Your task to perform on an android device: Go to internet settings Image 0: 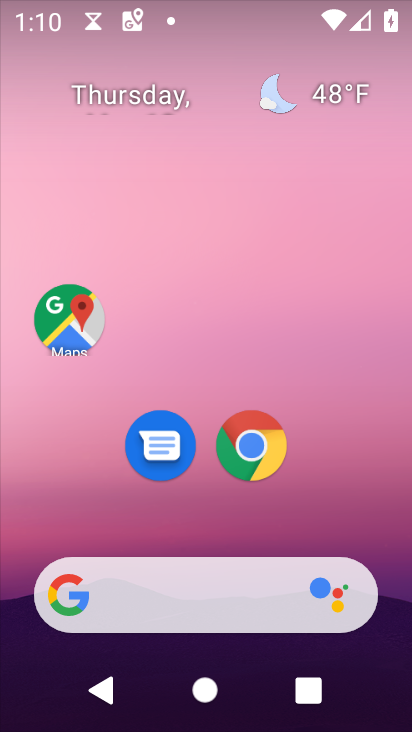
Step 0: drag from (292, 520) to (252, 121)
Your task to perform on an android device: Go to internet settings Image 1: 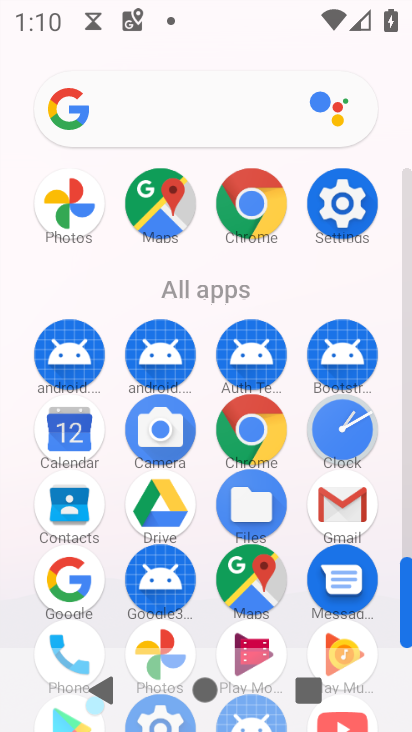
Step 1: click (355, 187)
Your task to perform on an android device: Go to internet settings Image 2: 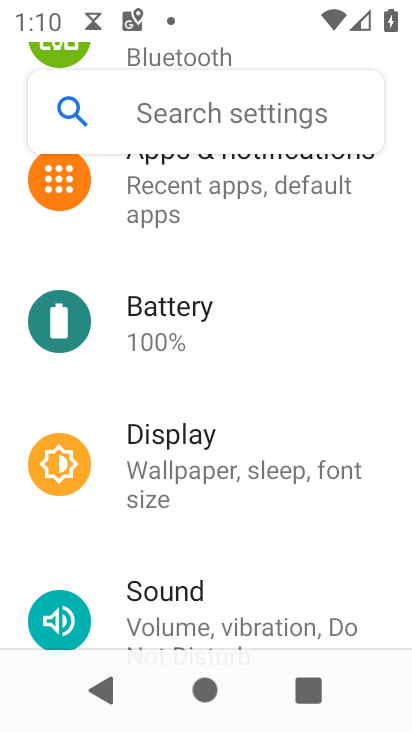
Step 2: drag from (259, 543) to (284, 382)
Your task to perform on an android device: Go to internet settings Image 3: 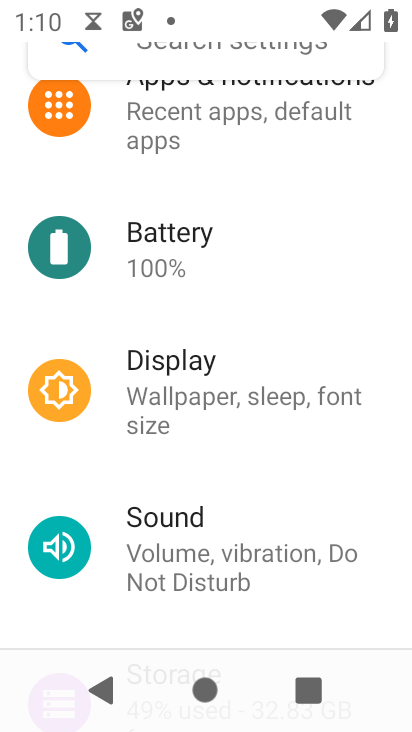
Step 3: drag from (338, 181) to (312, 490)
Your task to perform on an android device: Go to internet settings Image 4: 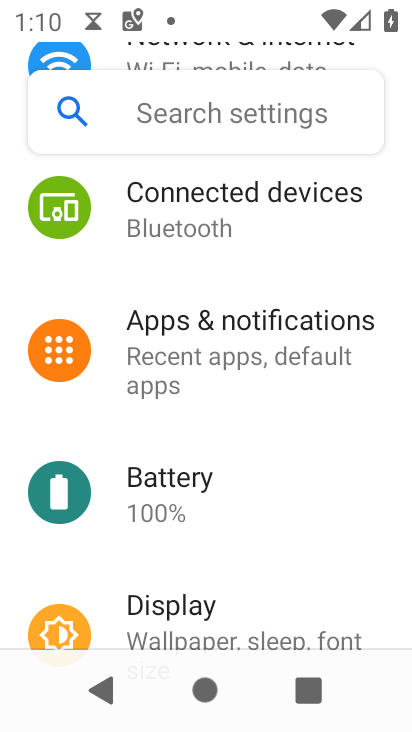
Step 4: drag from (282, 477) to (287, 219)
Your task to perform on an android device: Go to internet settings Image 5: 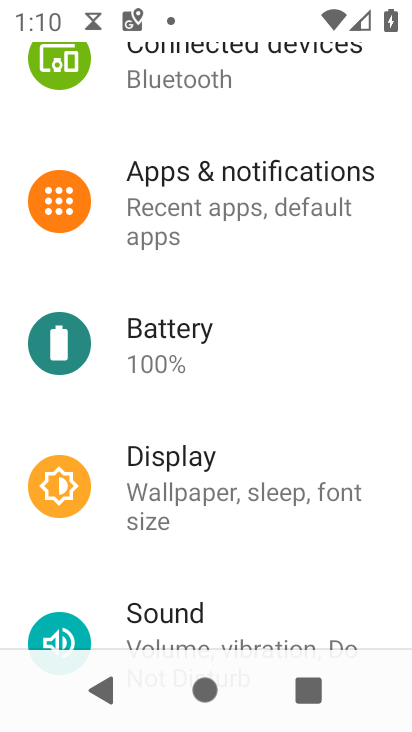
Step 5: drag from (316, 102) to (308, 613)
Your task to perform on an android device: Go to internet settings Image 6: 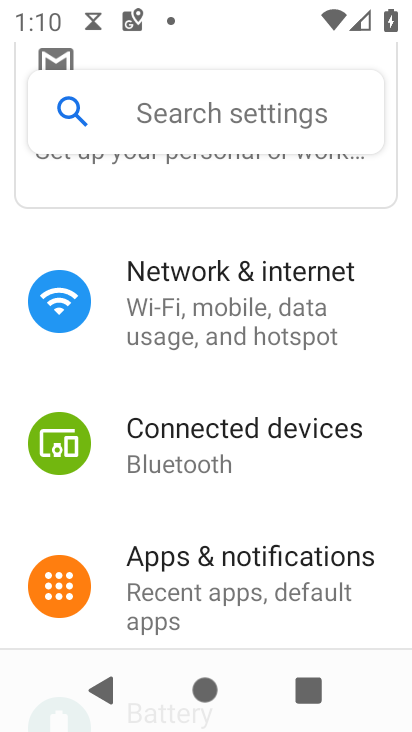
Step 6: click (275, 312)
Your task to perform on an android device: Go to internet settings Image 7: 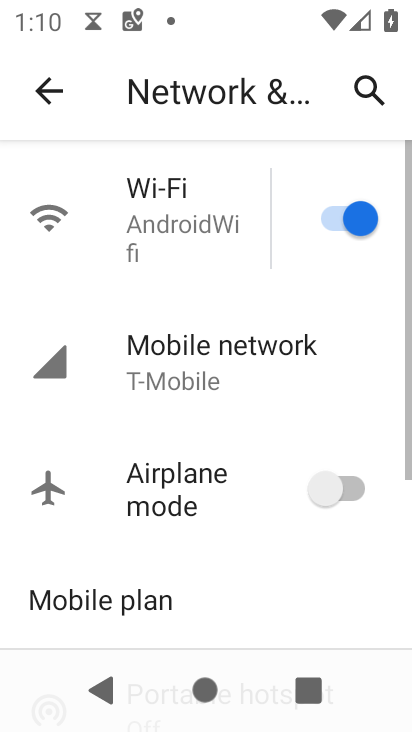
Step 7: task complete